Your task to perform on an android device: Open calendar and show me the fourth week of next month Image 0: 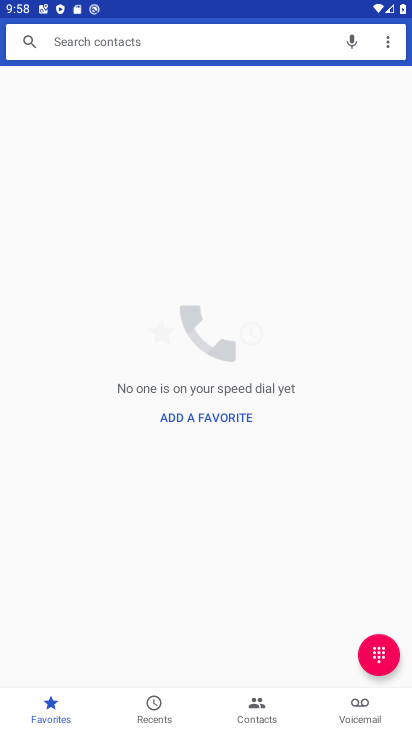
Step 0: press back button
Your task to perform on an android device: Open calendar and show me the fourth week of next month Image 1: 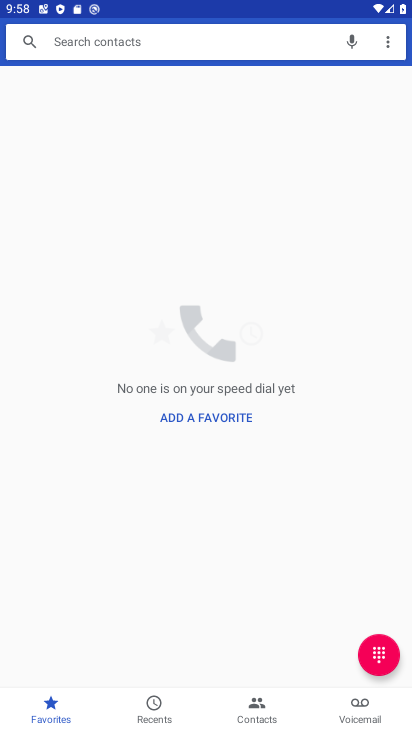
Step 1: press back button
Your task to perform on an android device: Open calendar and show me the fourth week of next month Image 2: 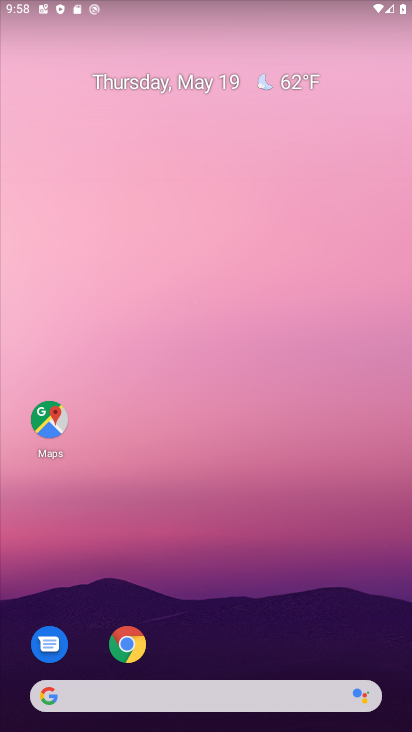
Step 2: drag from (244, 611) to (166, 72)
Your task to perform on an android device: Open calendar and show me the fourth week of next month Image 3: 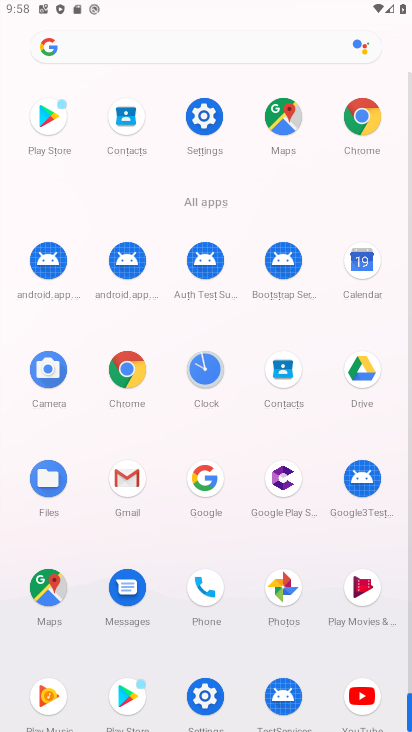
Step 3: click (370, 257)
Your task to perform on an android device: Open calendar and show me the fourth week of next month Image 4: 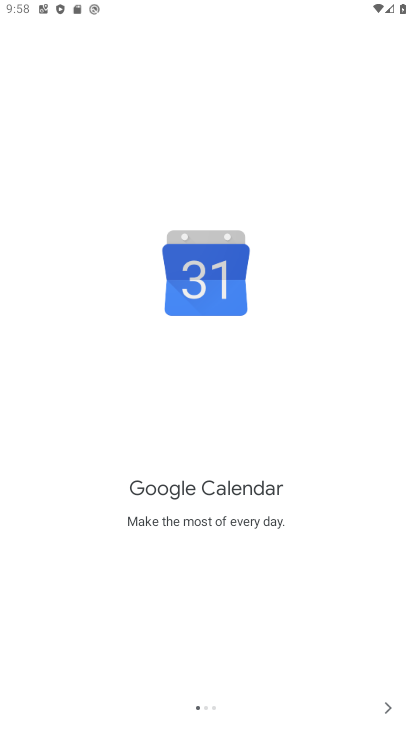
Step 4: click (389, 711)
Your task to perform on an android device: Open calendar and show me the fourth week of next month Image 5: 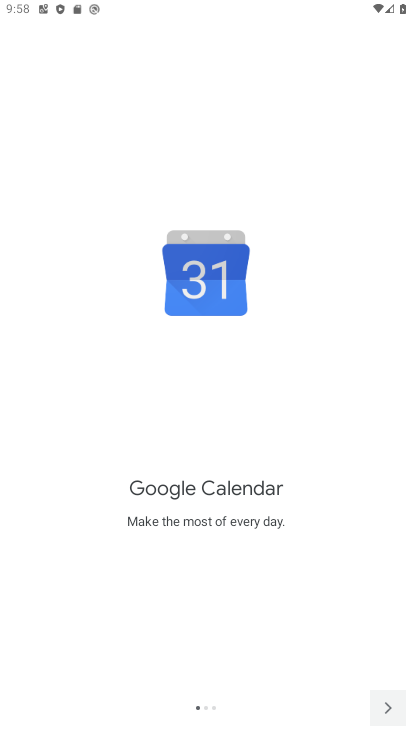
Step 5: click (389, 711)
Your task to perform on an android device: Open calendar and show me the fourth week of next month Image 6: 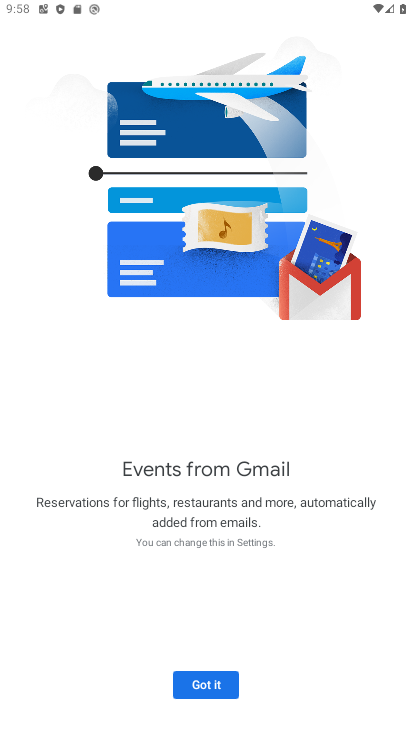
Step 6: click (389, 711)
Your task to perform on an android device: Open calendar and show me the fourth week of next month Image 7: 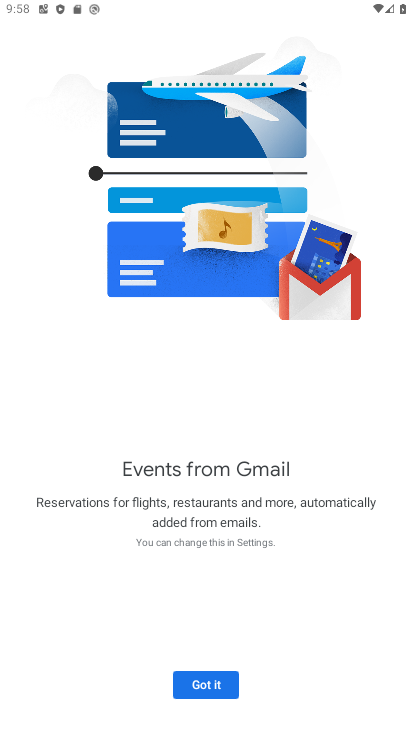
Step 7: click (215, 687)
Your task to perform on an android device: Open calendar and show me the fourth week of next month Image 8: 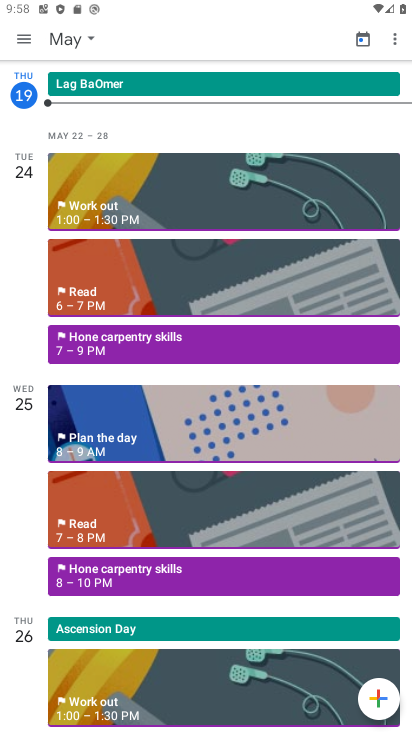
Step 8: click (84, 37)
Your task to perform on an android device: Open calendar and show me the fourth week of next month Image 9: 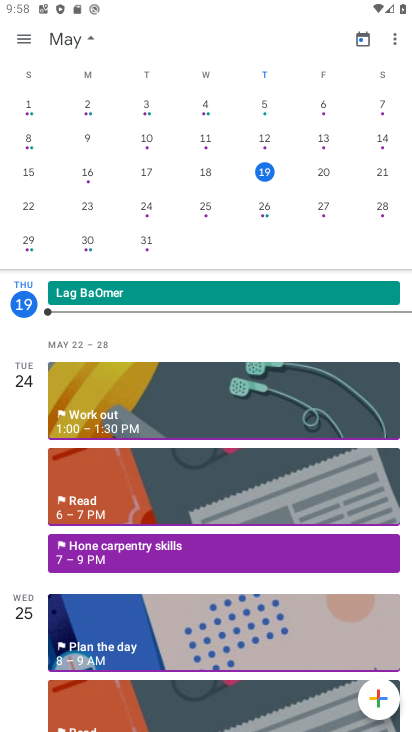
Step 9: drag from (283, 114) to (33, 188)
Your task to perform on an android device: Open calendar and show me the fourth week of next month Image 10: 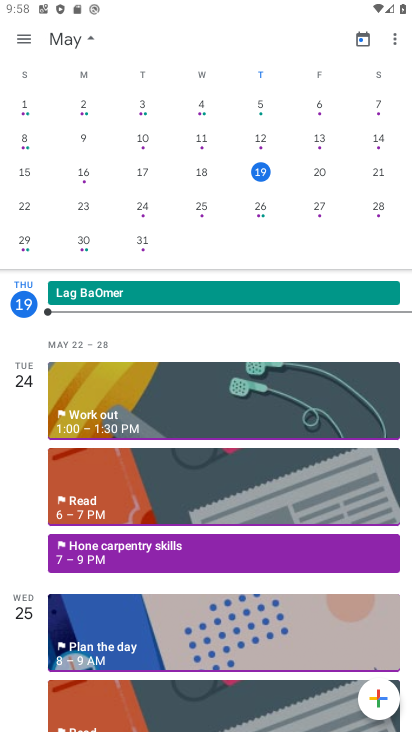
Step 10: drag from (268, 175) to (5, 206)
Your task to perform on an android device: Open calendar and show me the fourth week of next month Image 11: 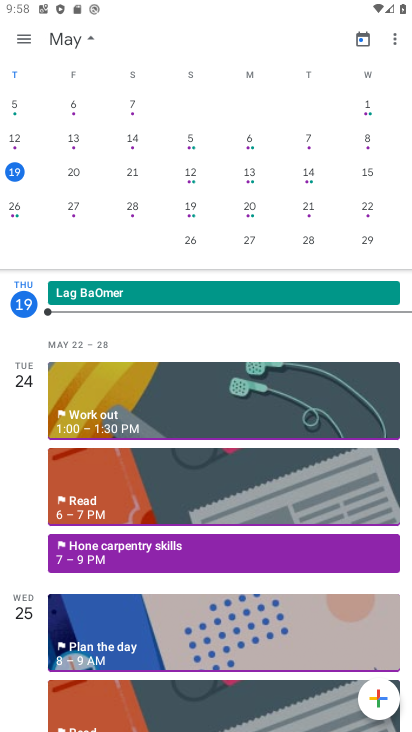
Step 11: drag from (203, 161) to (32, 168)
Your task to perform on an android device: Open calendar and show me the fourth week of next month Image 12: 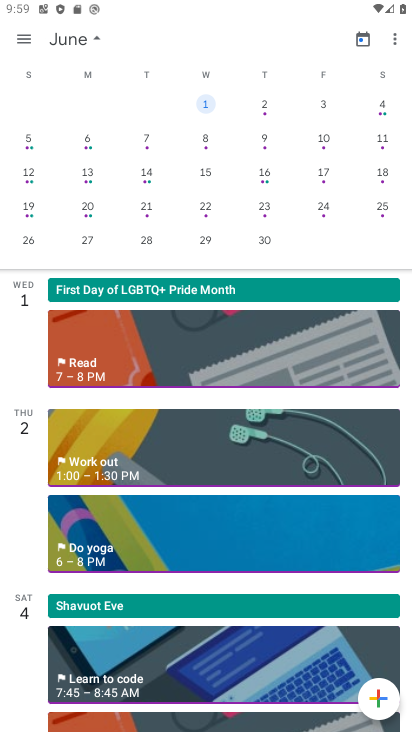
Step 12: click (201, 203)
Your task to perform on an android device: Open calendar and show me the fourth week of next month Image 13: 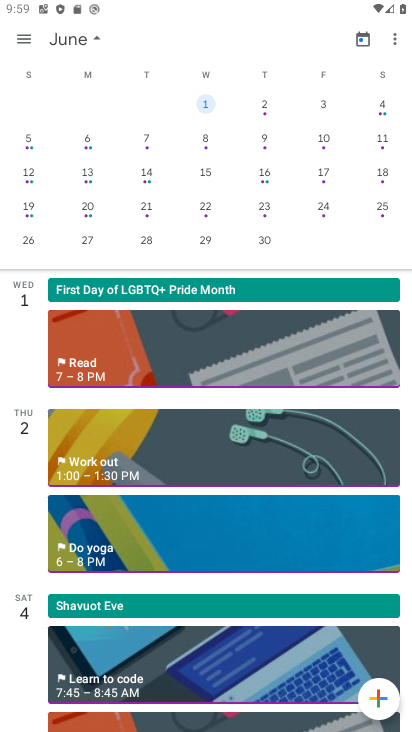
Step 13: click (202, 202)
Your task to perform on an android device: Open calendar and show me the fourth week of next month Image 14: 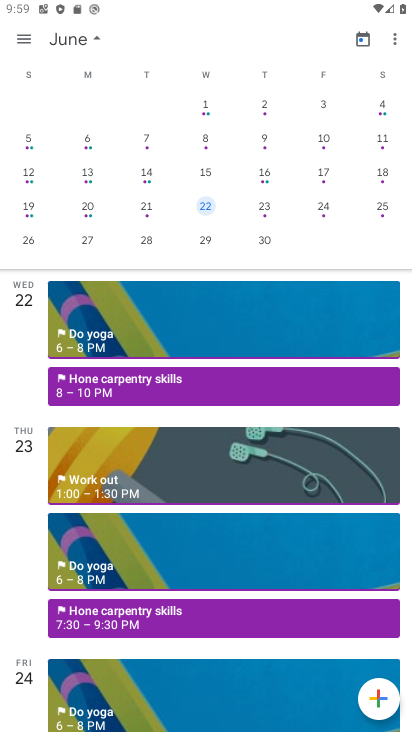
Step 14: click (202, 202)
Your task to perform on an android device: Open calendar and show me the fourth week of next month Image 15: 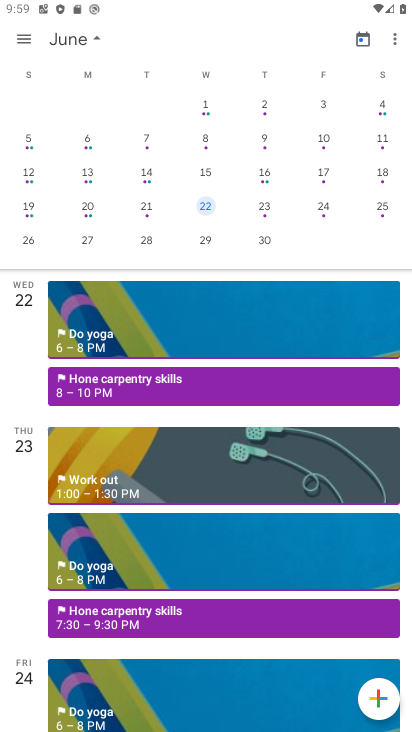
Step 15: task complete